Your task to perform on an android device: What is the recent news? Image 0: 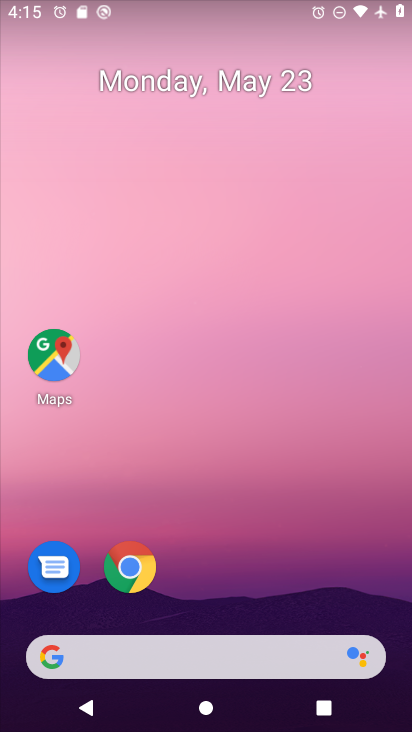
Step 0: drag from (5, 259) to (381, 270)
Your task to perform on an android device: What is the recent news? Image 1: 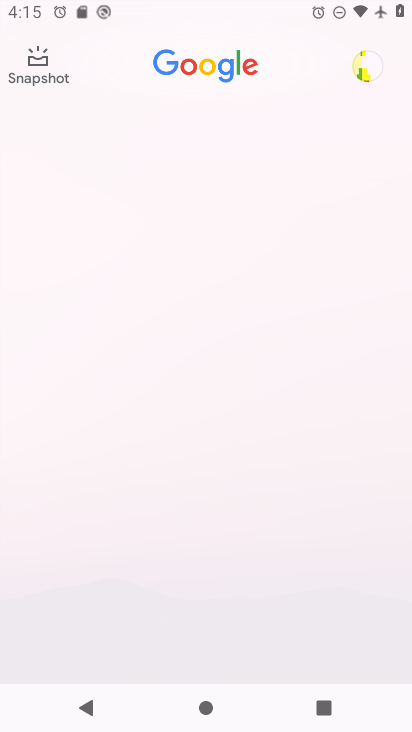
Step 1: press back button
Your task to perform on an android device: What is the recent news? Image 2: 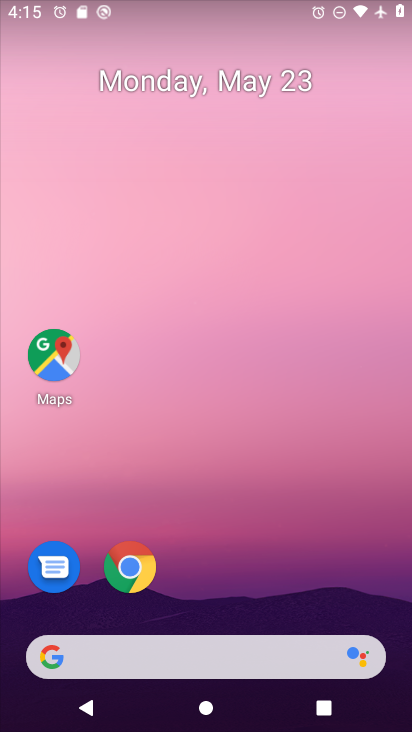
Step 2: click (222, 650)
Your task to perform on an android device: What is the recent news? Image 3: 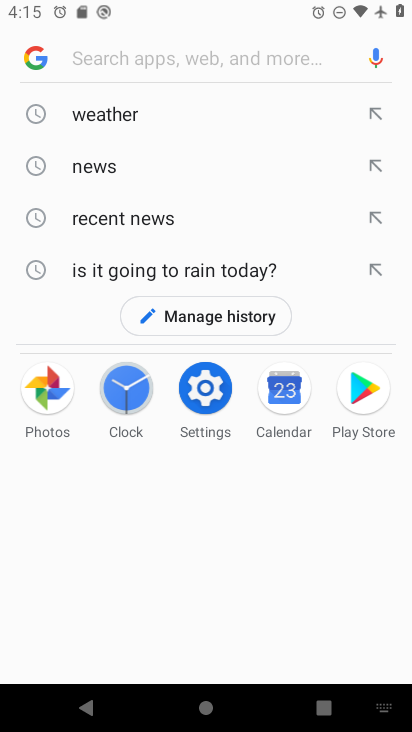
Step 3: click (90, 173)
Your task to perform on an android device: What is the recent news? Image 4: 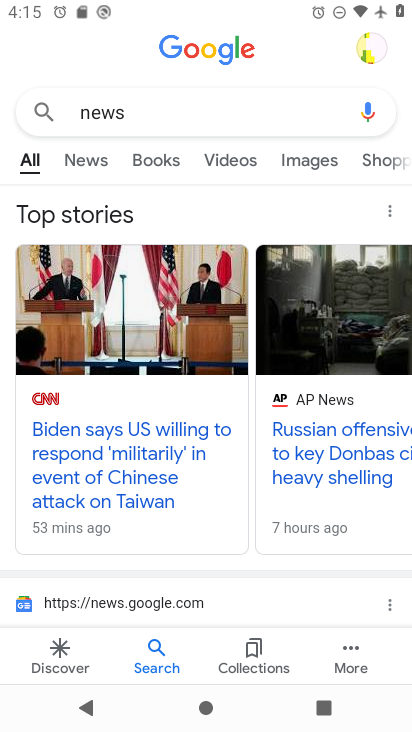
Step 4: press back button
Your task to perform on an android device: What is the recent news? Image 5: 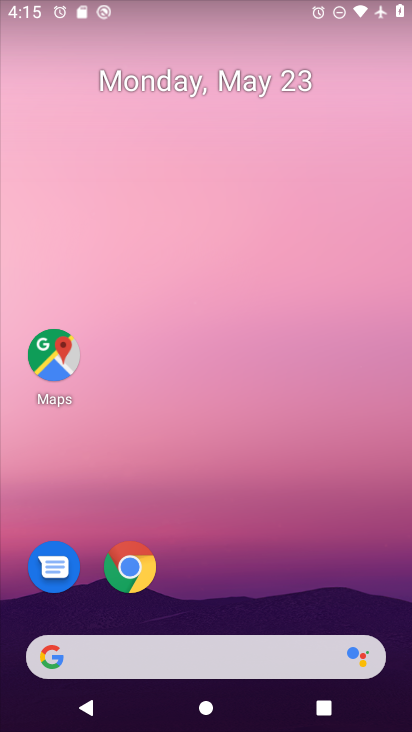
Step 5: click (201, 654)
Your task to perform on an android device: What is the recent news? Image 6: 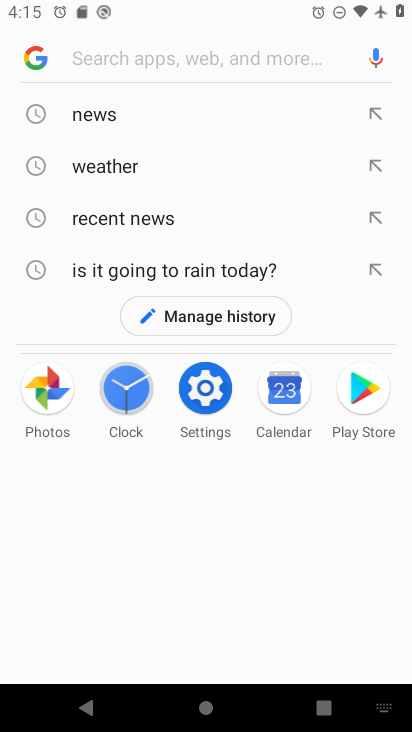
Step 6: click (113, 206)
Your task to perform on an android device: What is the recent news? Image 7: 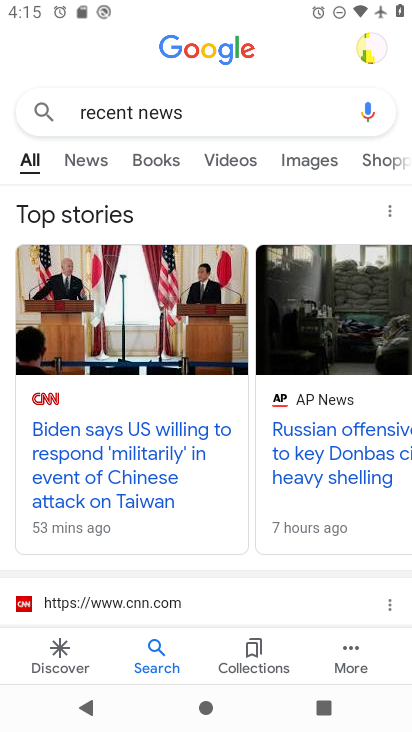
Step 7: task complete